Your task to perform on an android device: Is it going to rain tomorrow? Image 0: 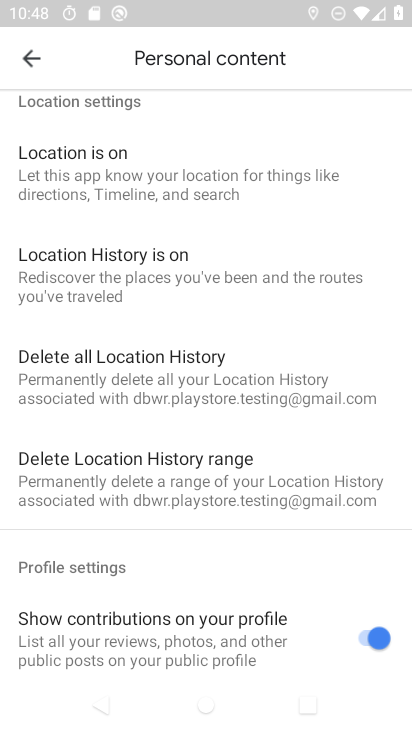
Step 0: press home button
Your task to perform on an android device: Is it going to rain tomorrow? Image 1: 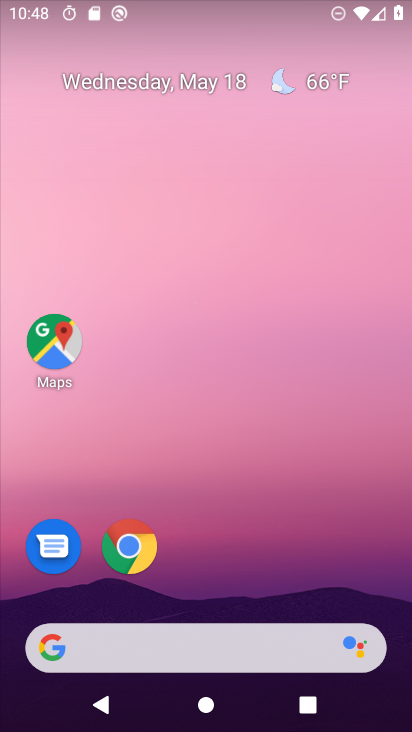
Step 1: click (316, 85)
Your task to perform on an android device: Is it going to rain tomorrow? Image 2: 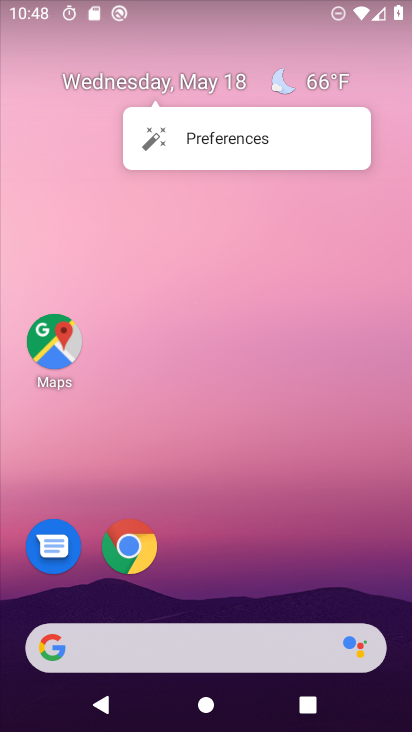
Step 2: click (316, 85)
Your task to perform on an android device: Is it going to rain tomorrow? Image 3: 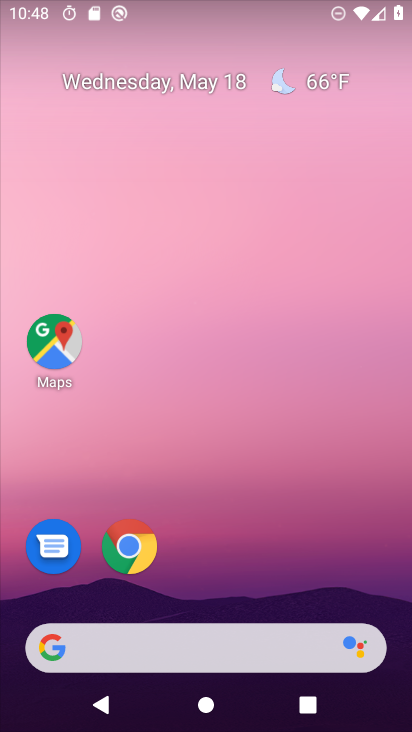
Step 3: click (316, 85)
Your task to perform on an android device: Is it going to rain tomorrow? Image 4: 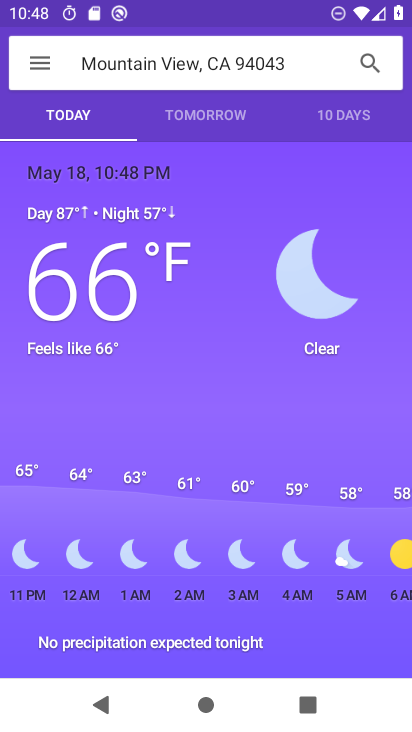
Step 4: click (214, 127)
Your task to perform on an android device: Is it going to rain tomorrow? Image 5: 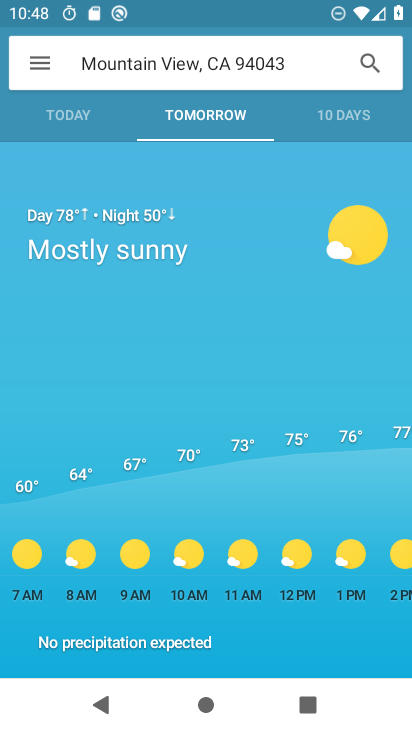
Step 5: task complete